Your task to perform on an android device: Play the last video I watched on Youtube Image 0: 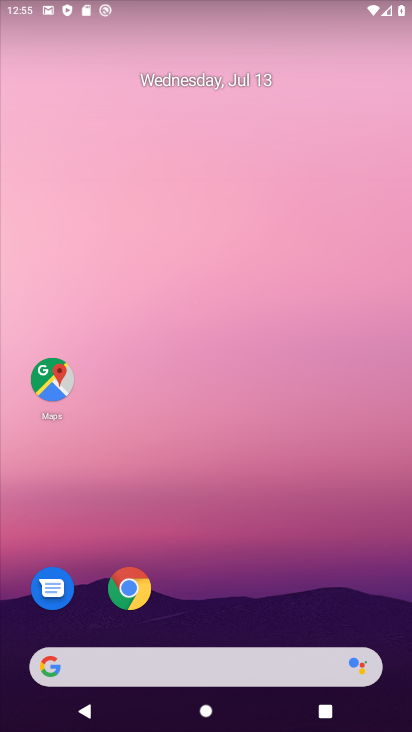
Step 0: press home button
Your task to perform on an android device: Play the last video I watched on Youtube Image 1: 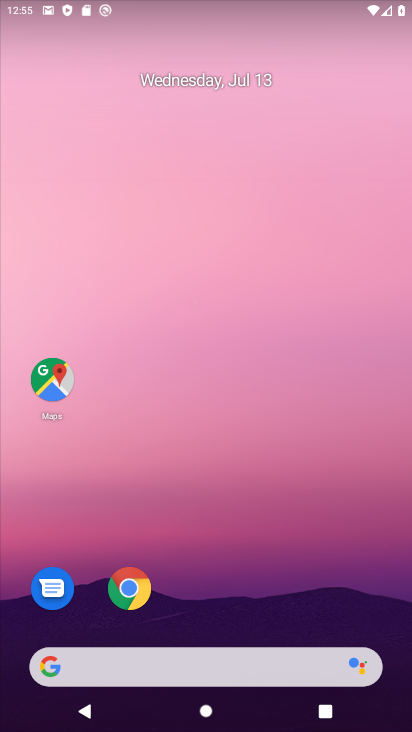
Step 1: drag from (231, 608) to (190, 174)
Your task to perform on an android device: Play the last video I watched on Youtube Image 2: 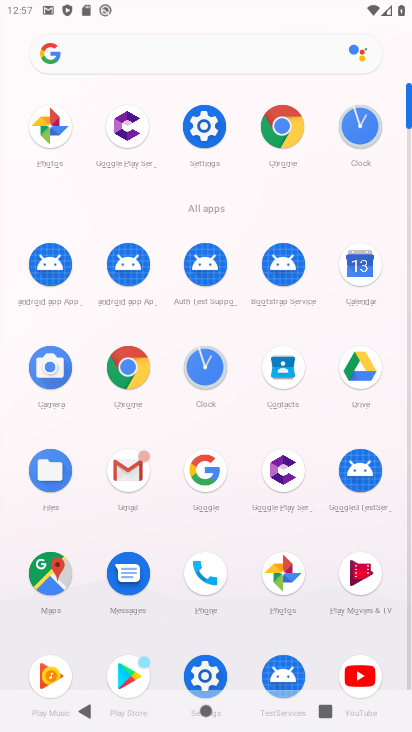
Step 2: click (362, 679)
Your task to perform on an android device: Play the last video I watched on Youtube Image 3: 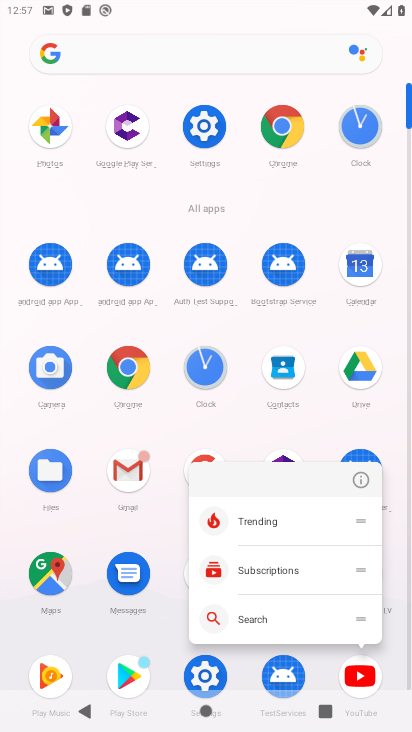
Step 3: click (362, 679)
Your task to perform on an android device: Play the last video I watched on Youtube Image 4: 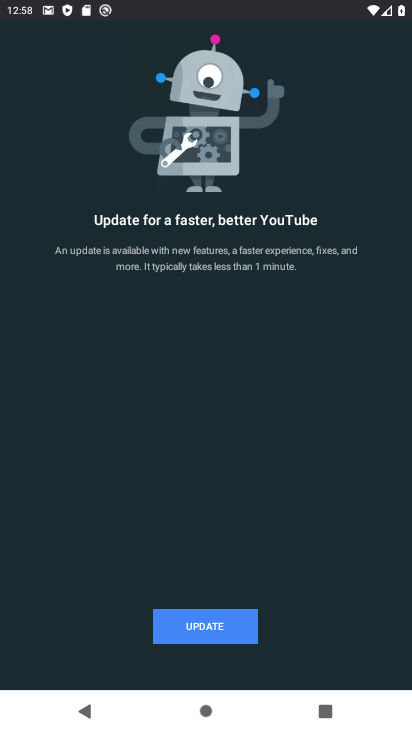
Step 4: click (225, 637)
Your task to perform on an android device: Play the last video I watched on Youtube Image 5: 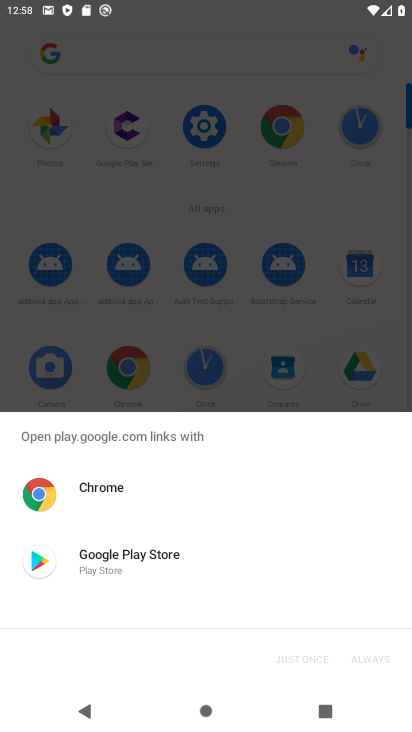
Step 5: click (158, 553)
Your task to perform on an android device: Play the last video I watched on Youtube Image 6: 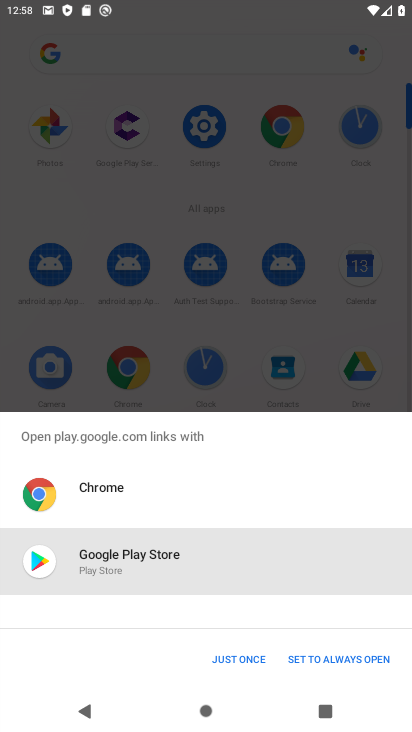
Step 6: click (244, 658)
Your task to perform on an android device: Play the last video I watched on Youtube Image 7: 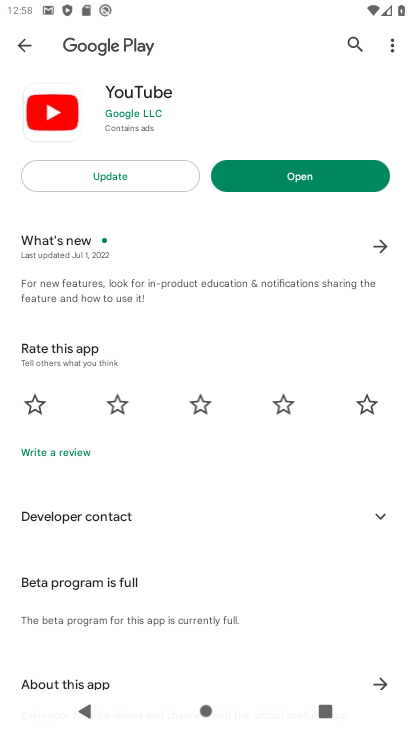
Step 7: click (121, 187)
Your task to perform on an android device: Play the last video I watched on Youtube Image 8: 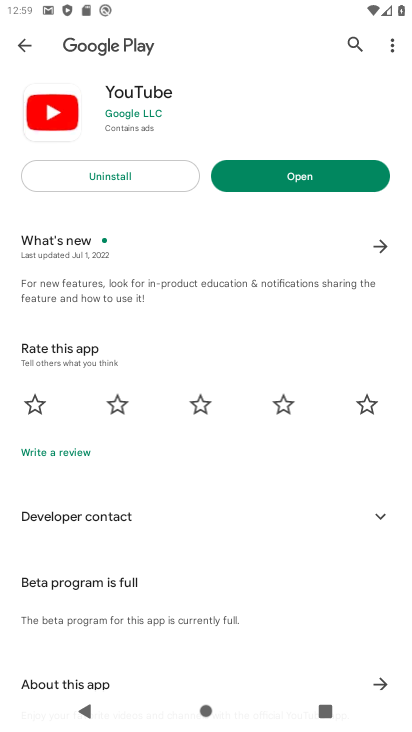
Step 8: click (286, 178)
Your task to perform on an android device: Play the last video I watched on Youtube Image 9: 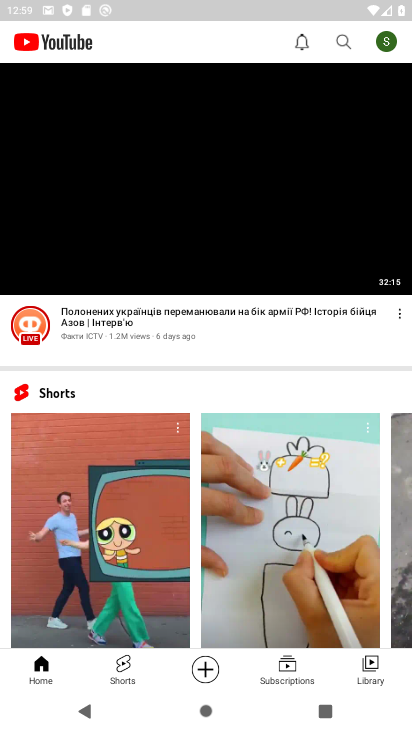
Step 9: click (366, 686)
Your task to perform on an android device: Play the last video I watched on Youtube Image 10: 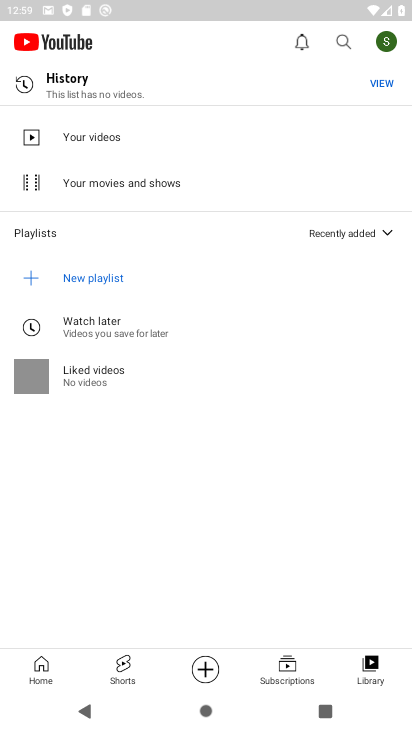
Step 10: click (79, 95)
Your task to perform on an android device: Play the last video I watched on Youtube Image 11: 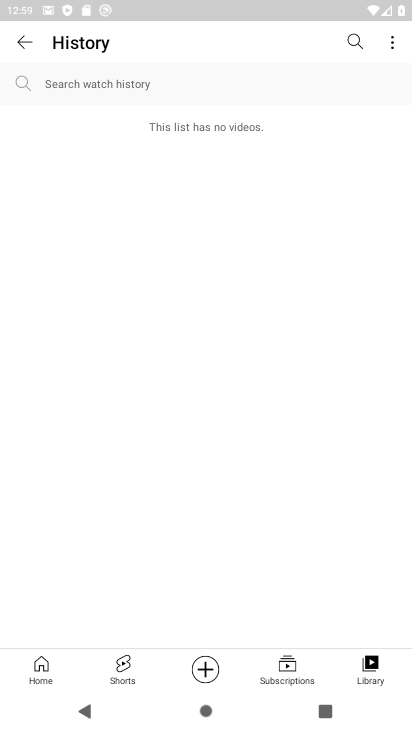
Step 11: task complete